Your task to perform on an android device: Open wifi settings Image 0: 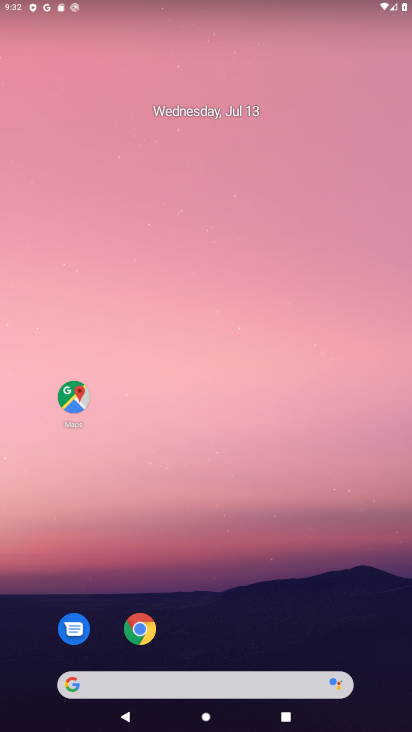
Step 0: drag from (314, 600) to (267, 42)
Your task to perform on an android device: Open wifi settings Image 1: 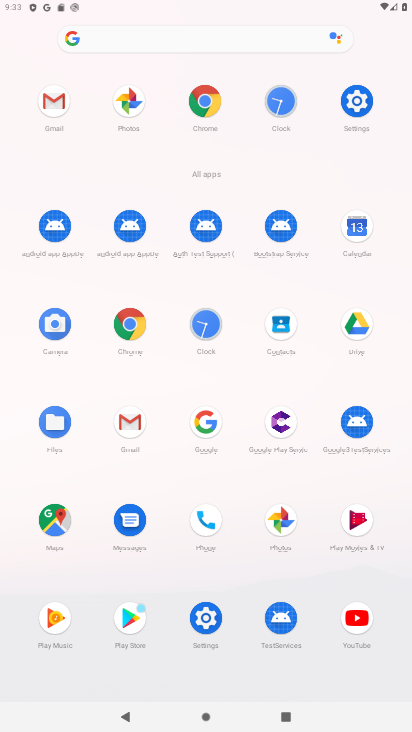
Step 1: click (358, 106)
Your task to perform on an android device: Open wifi settings Image 2: 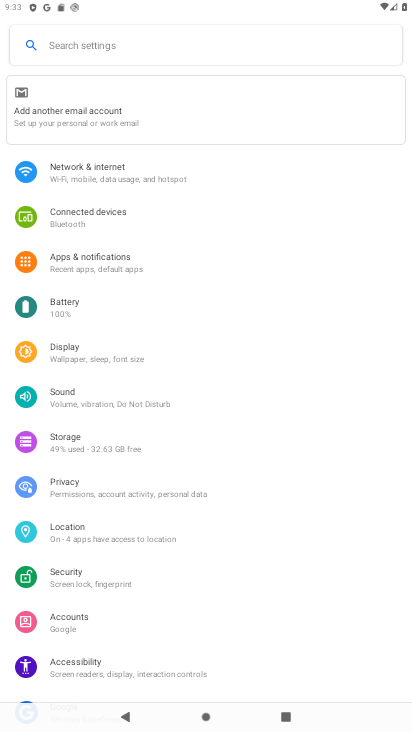
Step 2: click (164, 175)
Your task to perform on an android device: Open wifi settings Image 3: 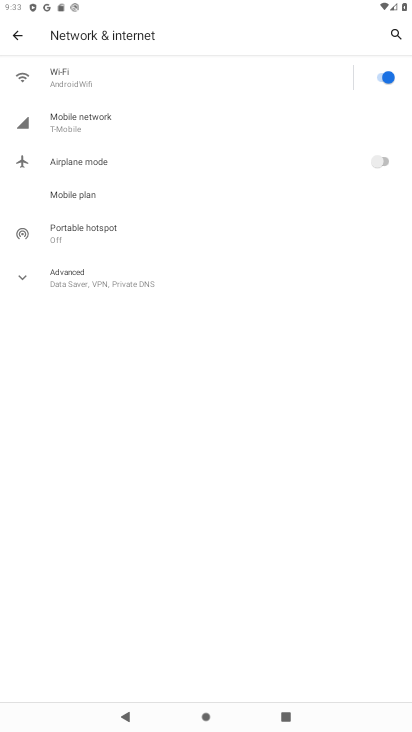
Step 3: task complete